Your task to perform on an android device: Open display settings Image 0: 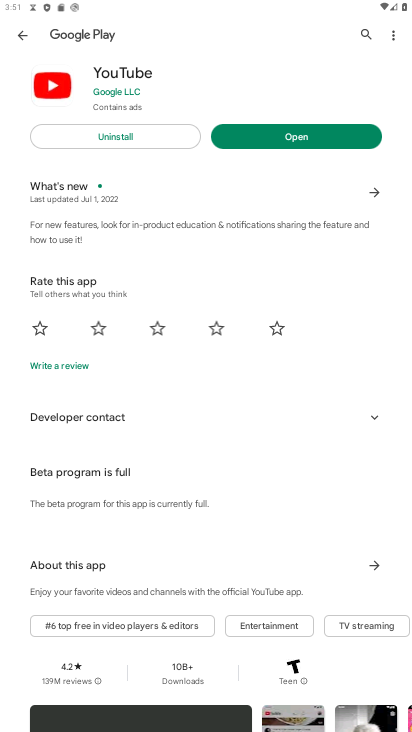
Step 0: press home button
Your task to perform on an android device: Open display settings Image 1: 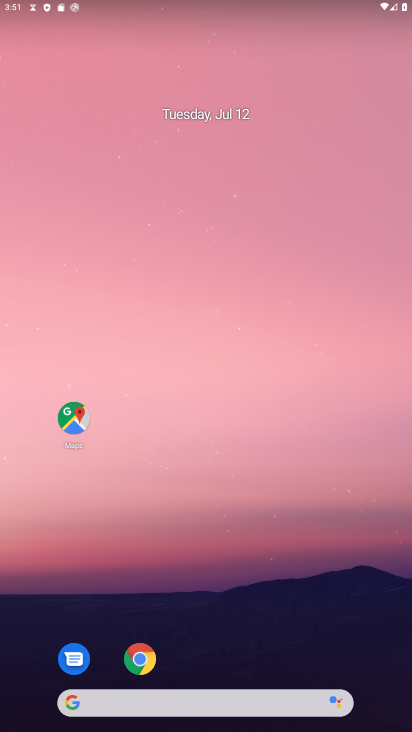
Step 1: press home button
Your task to perform on an android device: Open display settings Image 2: 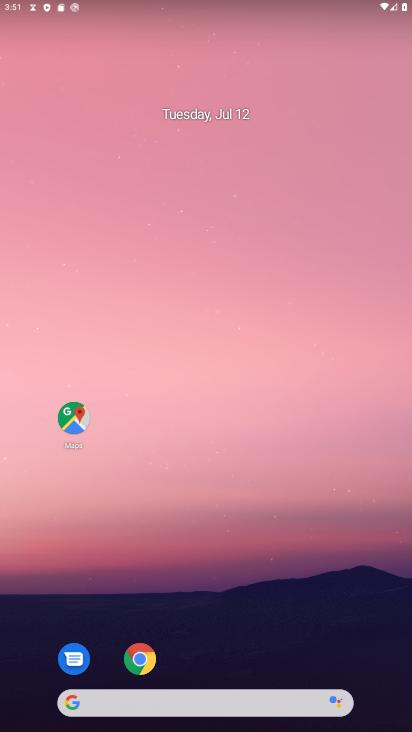
Step 2: drag from (279, 612) to (292, 136)
Your task to perform on an android device: Open display settings Image 3: 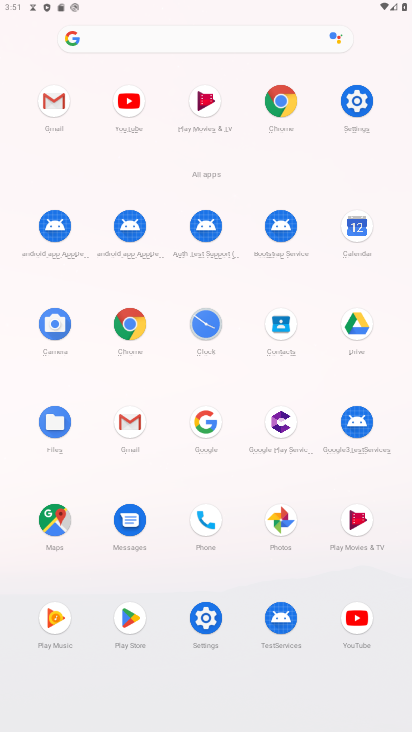
Step 3: click (358, 90)
Your task to perform on an android device: Open display settings Image 4: 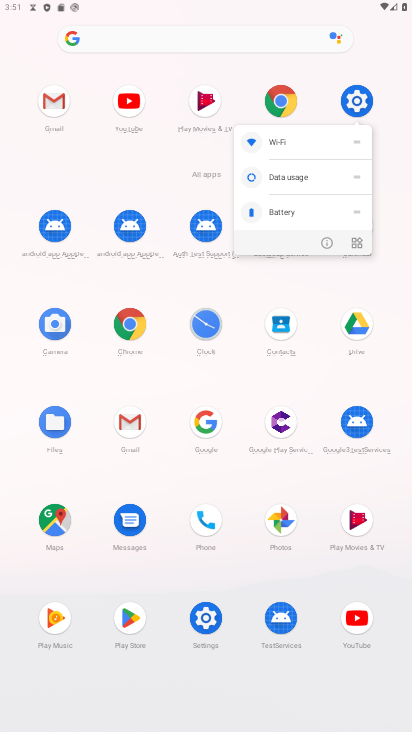
Step 4: click (369, 95)
Your task to perform on an android device: Open display settings Image 5: 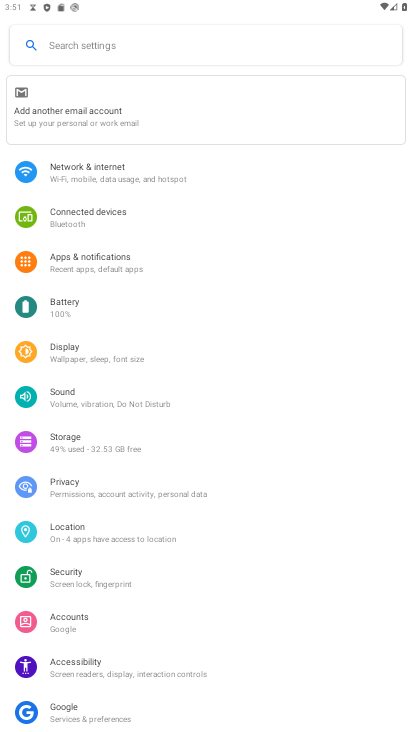
Step 5: click (70, 342)
Your task to perform on an android device: Open display settings Image 6: 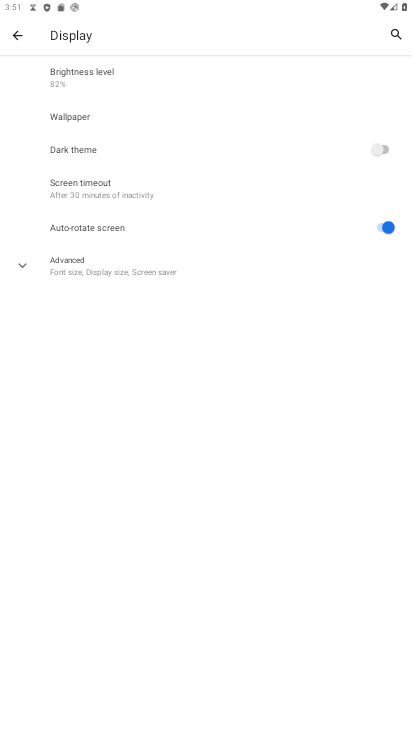
Step 6: task complete